Your task to perform on an android device: turn off smart reply in the gmail app Image 0: 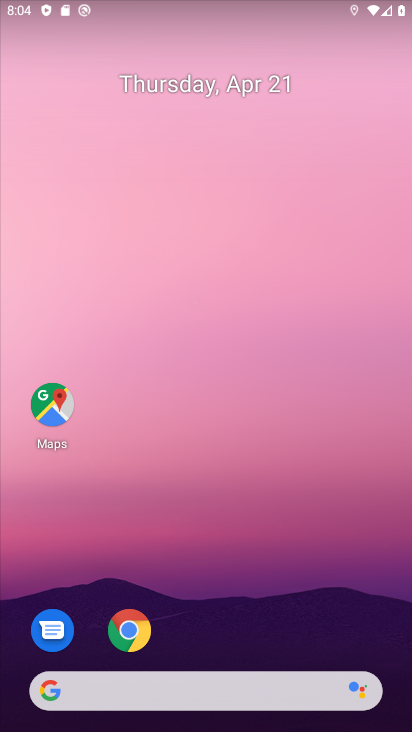
Step 0: drag from (297, 594) to (259, 182)
Your task to perform on an android device: turn off smart reply in the gmail app Image 1: 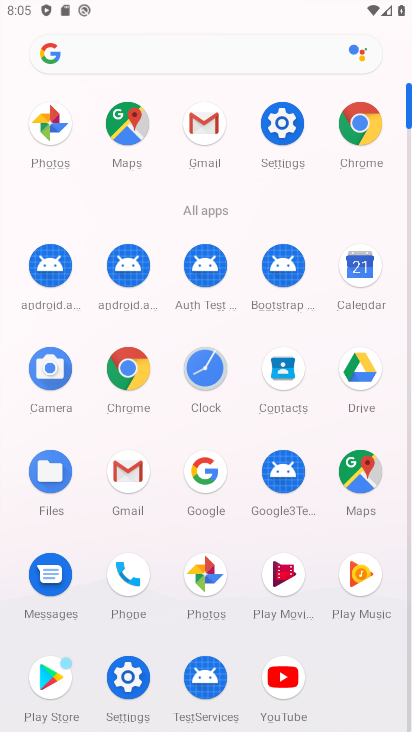
Step 1: click (127, 483)
Your task to perform on an android device: turn off smart reply in the gmail app Image 2: 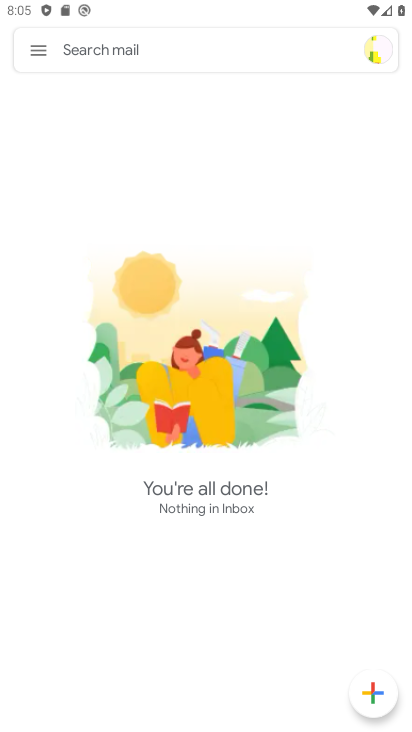
Step 2: click (40, 55)
Your task to perform on an android device: turn off smart reply in the gmail app Image 3: 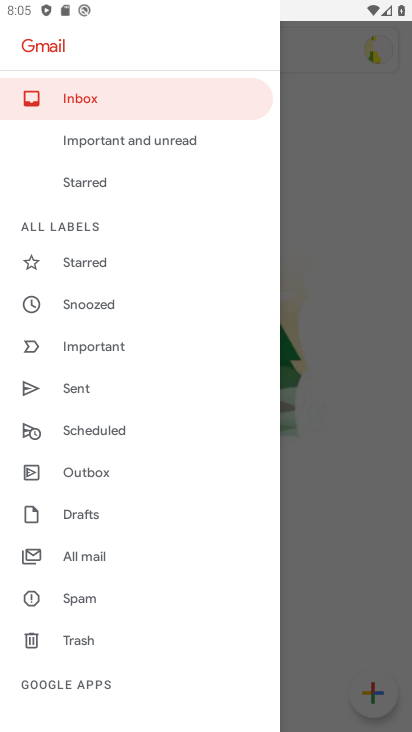
Step 3: drag from (113, 677) to (143, 369)
Your task to perform on an android device: turn off smart reply in the gmail app Image 4: 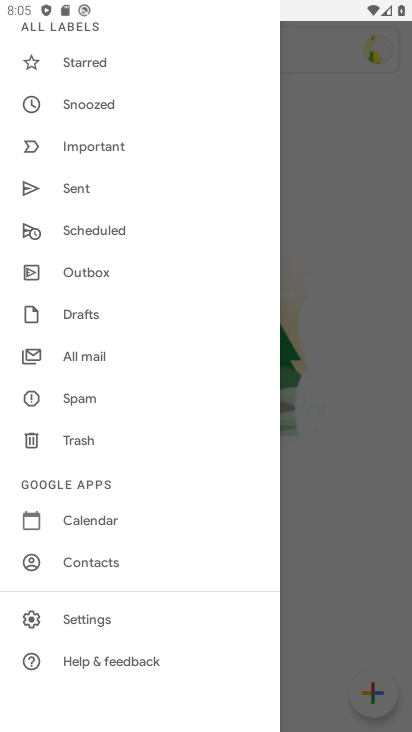
Step 4: click (110, 620)
Your task to perform on an android device: turn off smart reply in the gmail app Image 5: 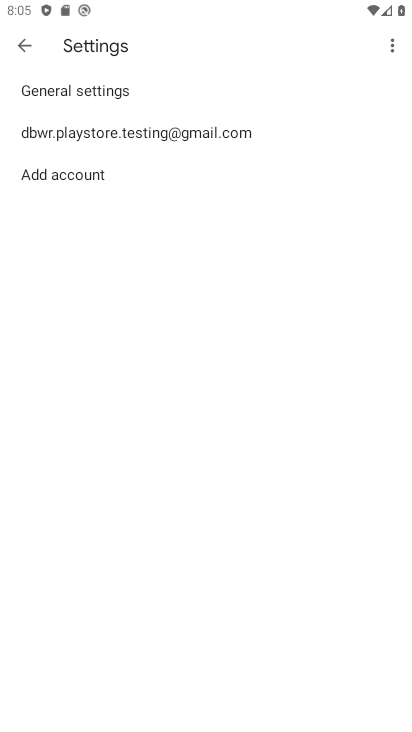
Step 5: click (279, 144)
Your task to perform on an android device: turn off smart reply in the gmail app Image 6: 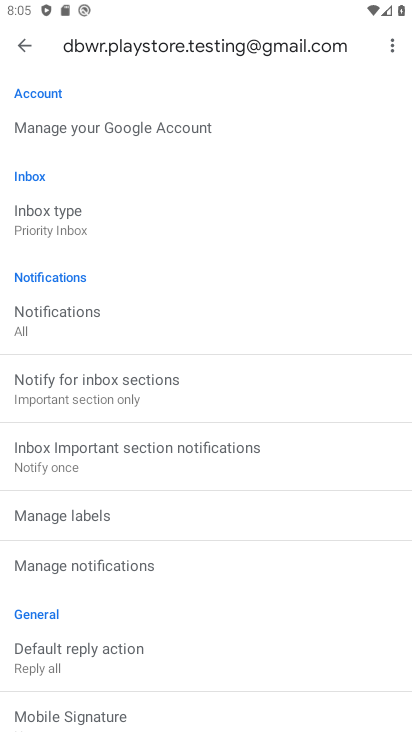
Step 6: drag from (179, 643) to (201, 354)
Your task to perform on an android device: turn off smart reply in the gmail app Image 7: 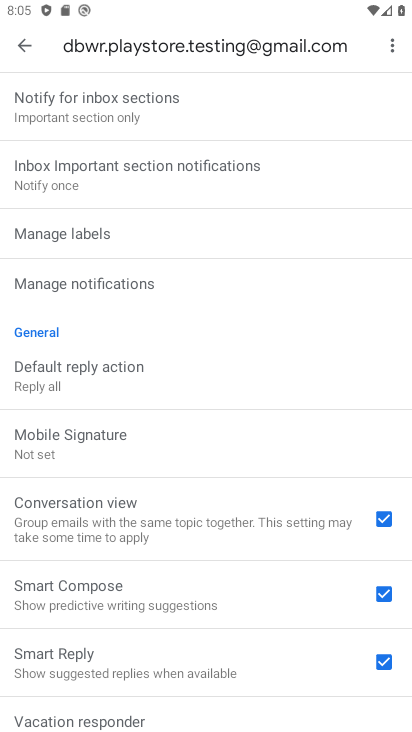
Step 7: click (278, 665)
Your task to perform on an android device: turn off smart reply in the gmail app Image 8: 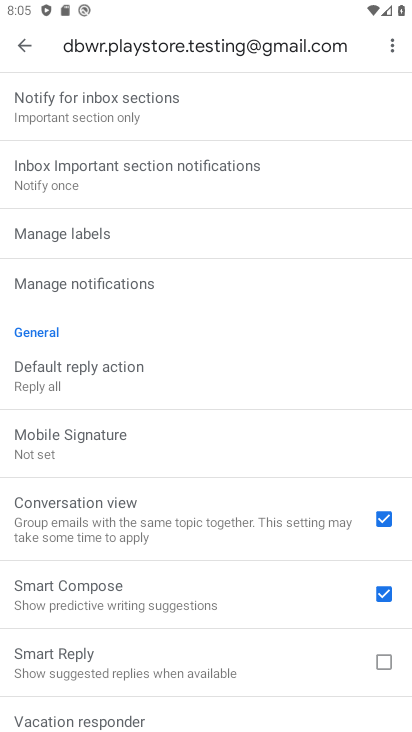
Step 8: task complete